Your task to perform on an android device: snooze an email in the gmail app Image 0: 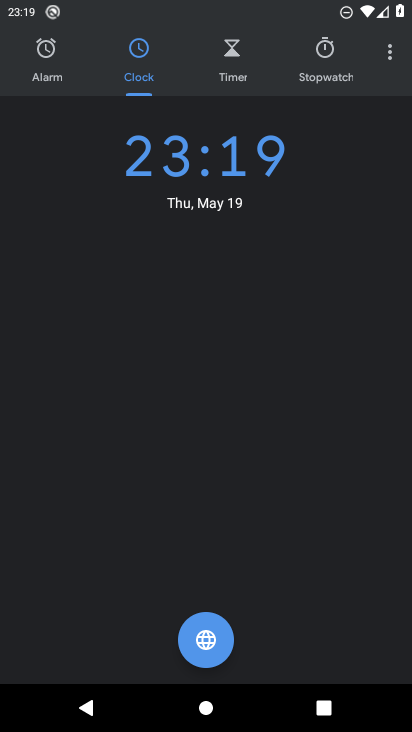
Step 0: press home button
Your task to perform on an android device: snooze an email in the gmail app Image 1: 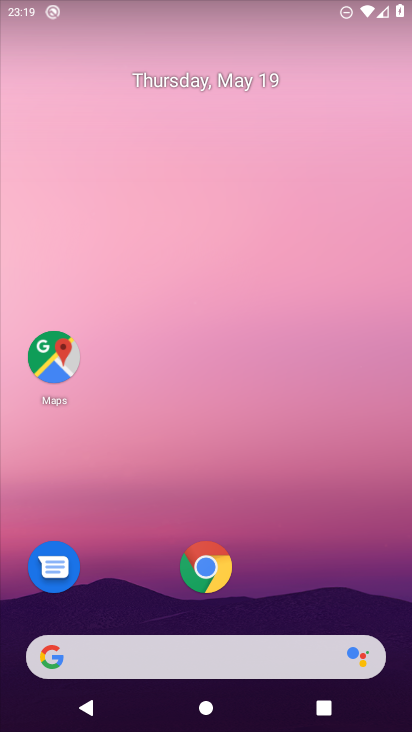
Step 1: drag from (303, 252) to (319, 140)
Your task to perform on an android device: snooze an email in the gmail app Image 2: 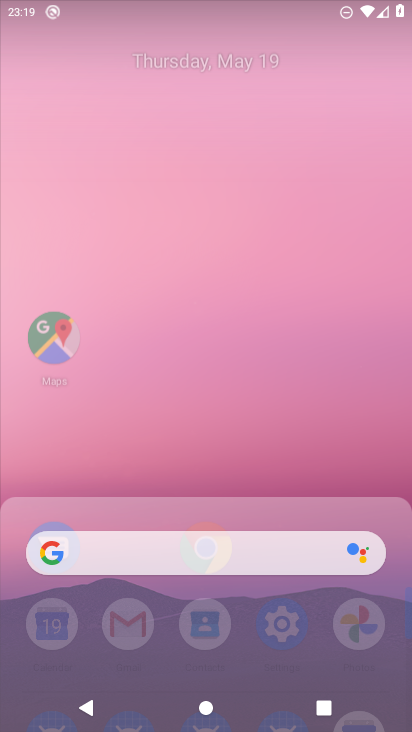
Step 2: click (323, 94)
Your task to perform on an android device: snooze an email in the gmail app Image 3: 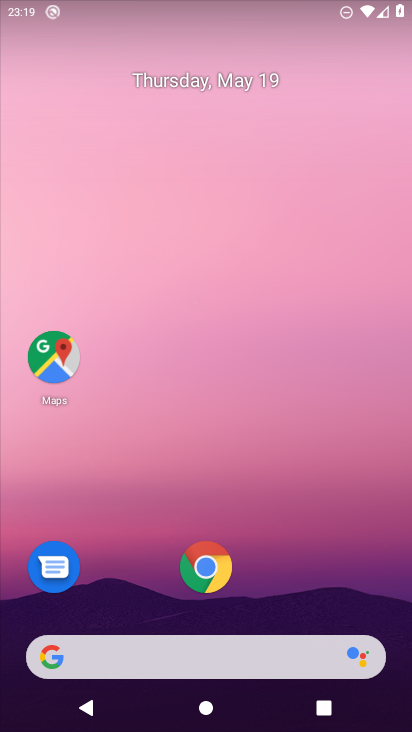
Step 3: drag from (277, 608) to (325, 43)
Your task to perform on an android device: snooze an email in the gmail app Image 4: 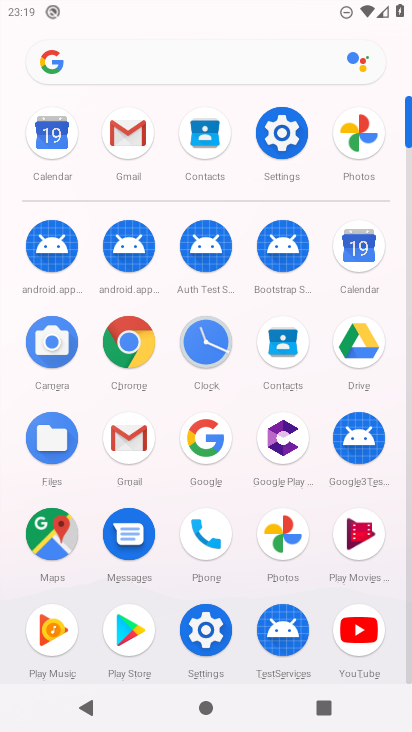
Step 4: click (128, 427)
Your task to perform on an android device: snooze an email in the gmail app Image 5: 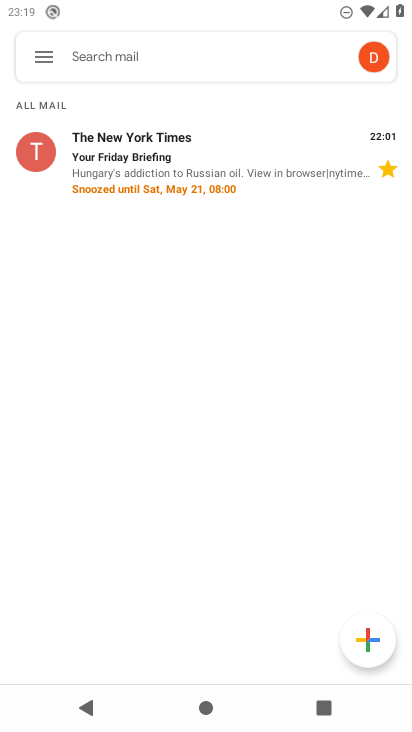
Step 5: click (45, 153)
Your task to perform on an android device: snooze an email in the gmail app Image 6: 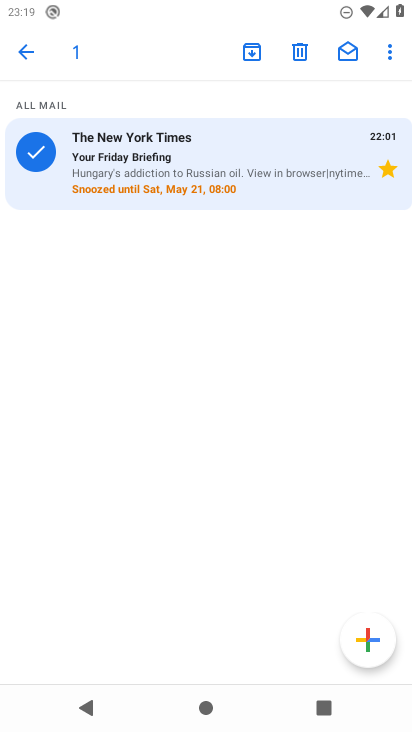
Step 6: click (394, 48)
Your task to perform on an android device: snooze an email in the gmail app Image 7: 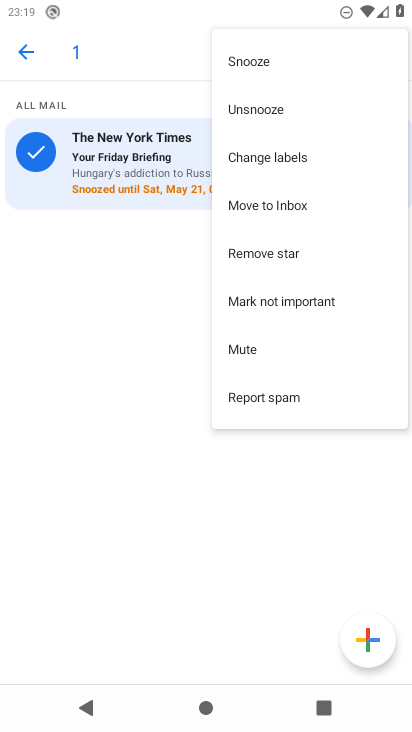
Step 7: click (286, 47)
Your task to perform on an android device: snooze an email in the gmail app Image 8: 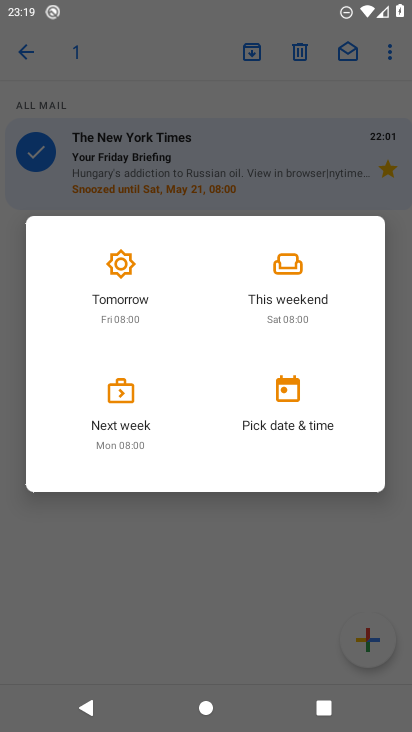
Step 8: click (131, 405)
Your task to perform on an android device: snooze an email in the gmail app Image 9: 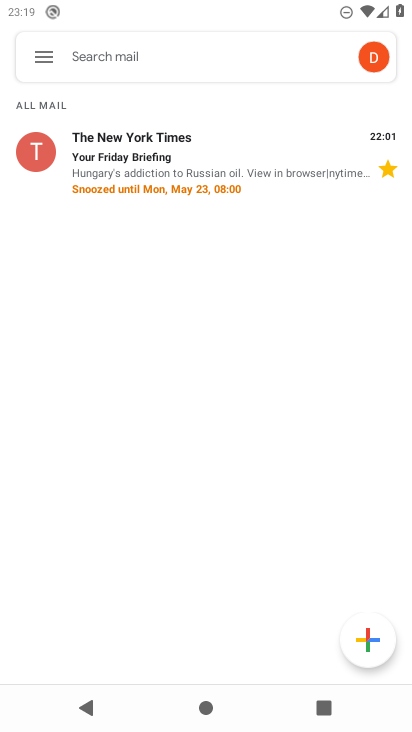
Step 9: task complete